Your task to perform on an android device: Clear all items from cart on costco. Image 0: 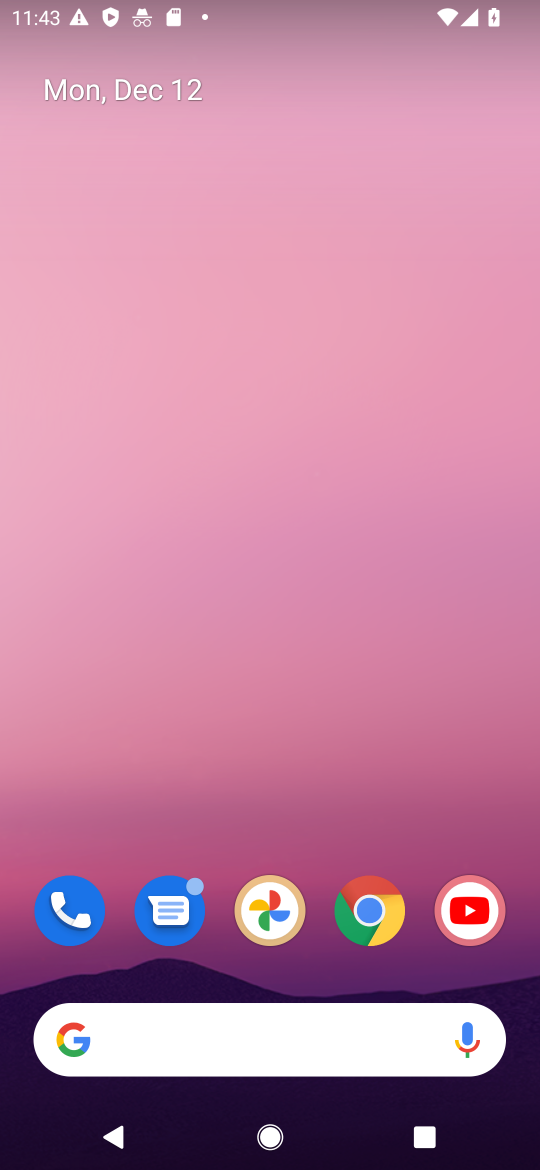
Step 0: click (379, 887)
Your task to perform on an android device: Clear all items from cart on costco. Image 1: 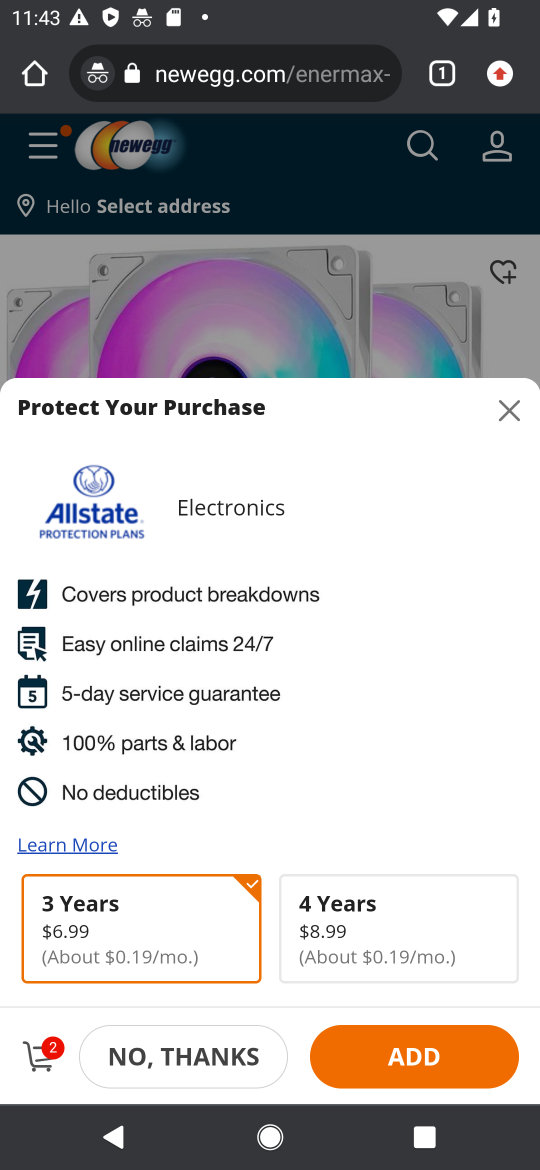
Step 1: click (228, 71)
Your task to perform on an android device: Clear all items from cart on costco. Image 2: 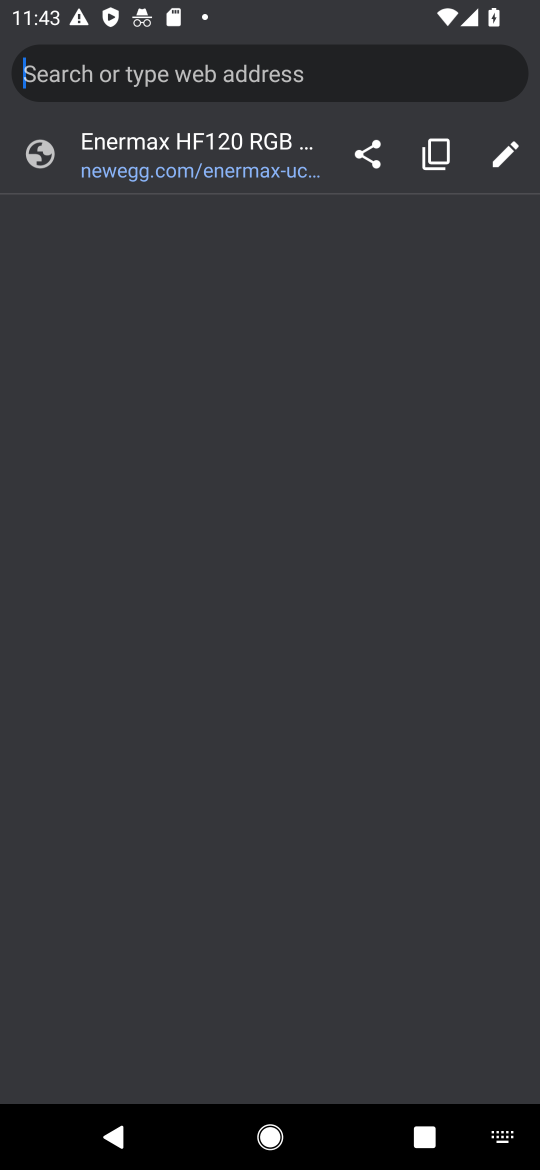
Step 2: type "COSTCO"
Your task to perform on an android device: Clear all items from cart on costco. Image 3: 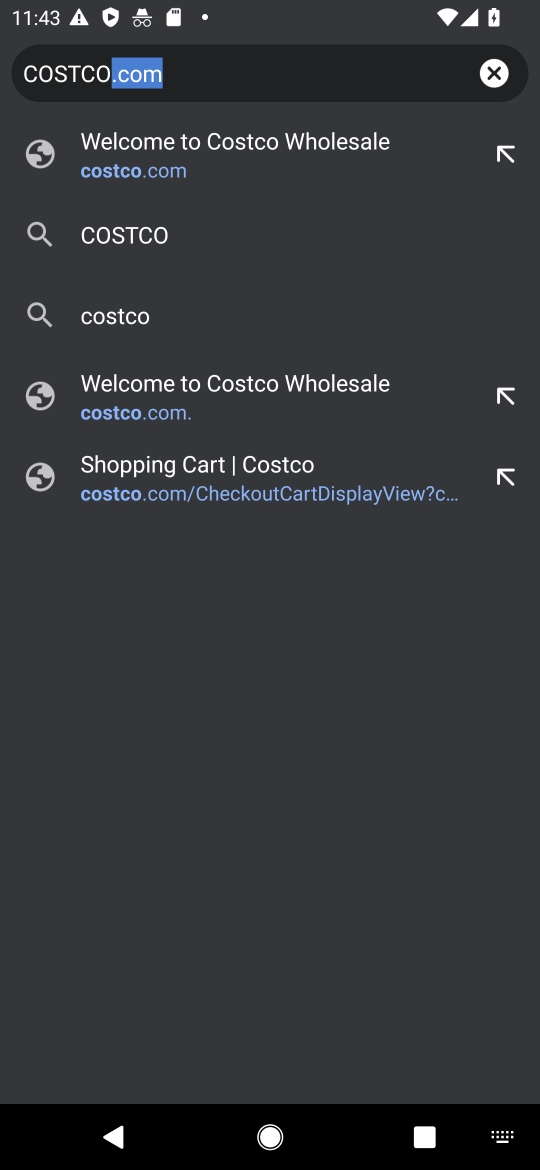
Step 3: click (282, 157)
Your task to perform on an android device: Clear all items from cart on costco. Image 4: 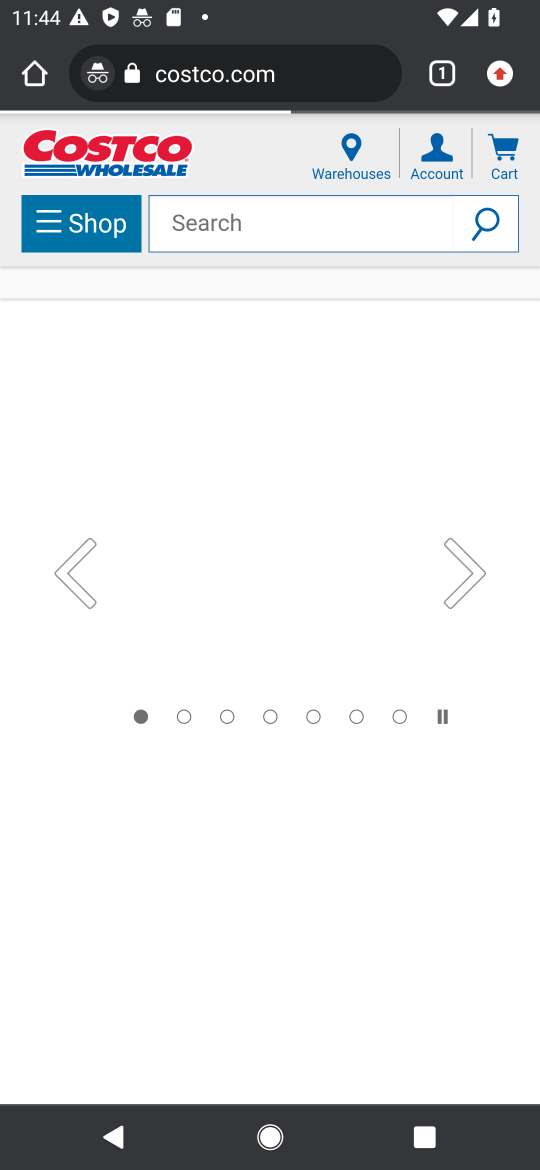
Step 4: click (287, 223)
Your task to perform on an android device: Clear all items from cart on costco. Image 5: 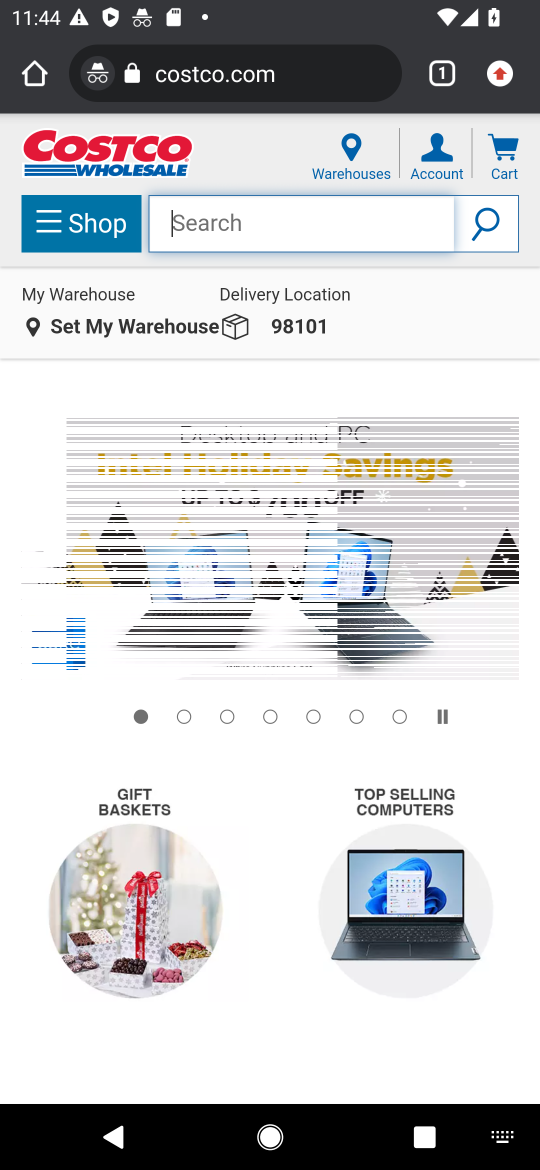
Step 5: click (504, 153)
Your task to perform on an android device: Clear all items from cart on costco. Image 6: 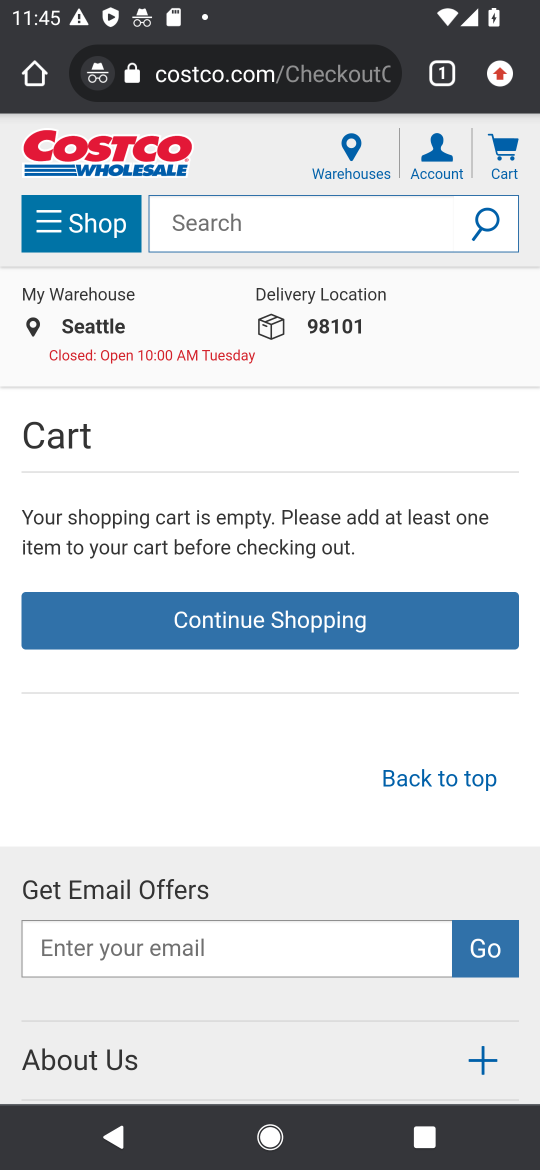
Step 6: task complete